Your task to perform on an android device: Open battery settings Image 0: 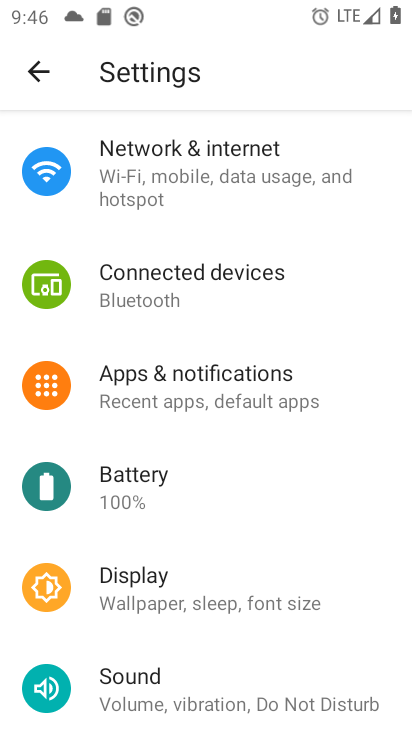
Step 0: press home button
Your task to perform on an android device: Open battery settings Image 1: 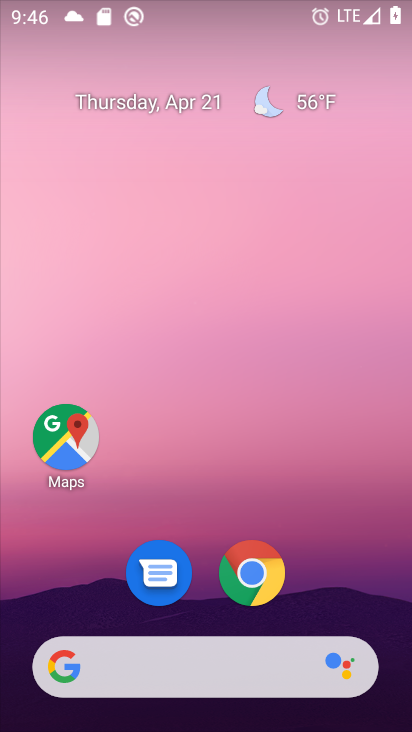
Step 1: drag from (185, 502) to (213, 49)
Your task to perform on an android device: Open battery settings Image 2: 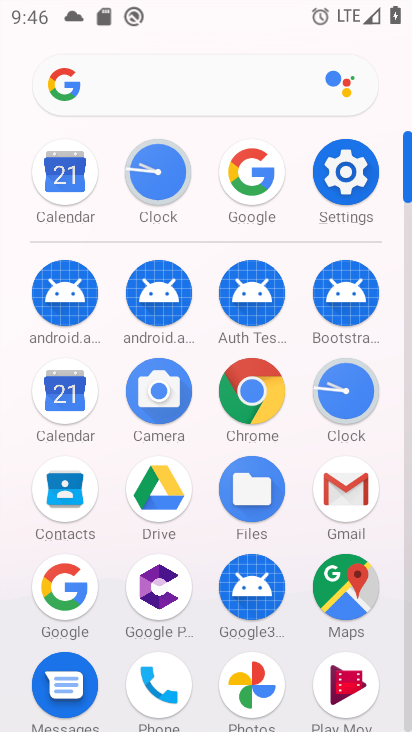
Step 2: click (346, 173)
Your task to perform on an android device: Open battery settings Image 3: 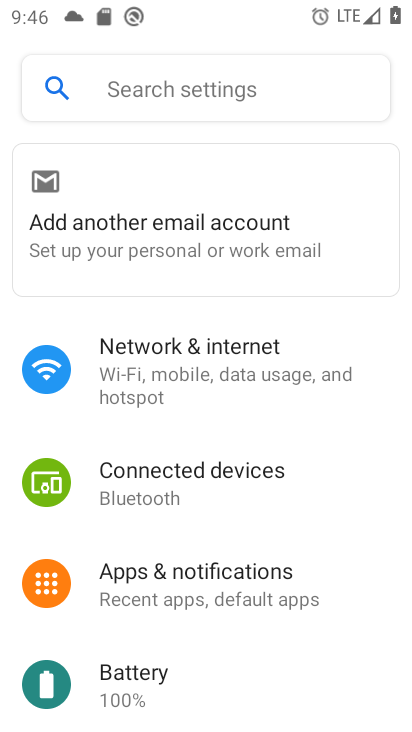
Step 3: drag from (199, 541) to (252, 423)
Your task to perform on an android device: Open battery settings Image 4: 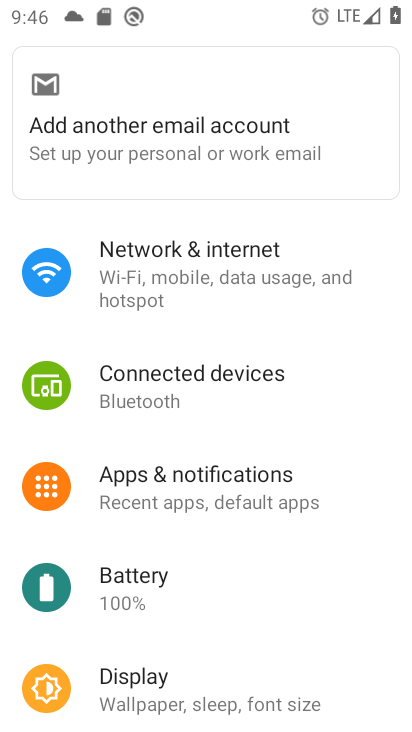
Step 4: click (143, 579)
Your task to perform on an android device: Open battery settings Image 5: 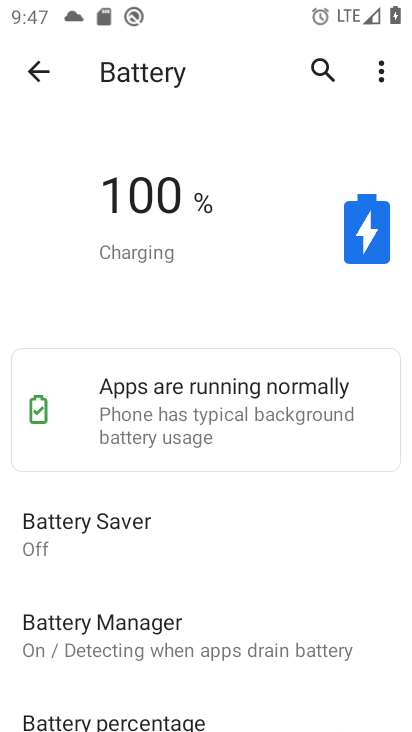
Step 5: task complete